Your task to perform on an android device: Go to Wikipedia Image 0: 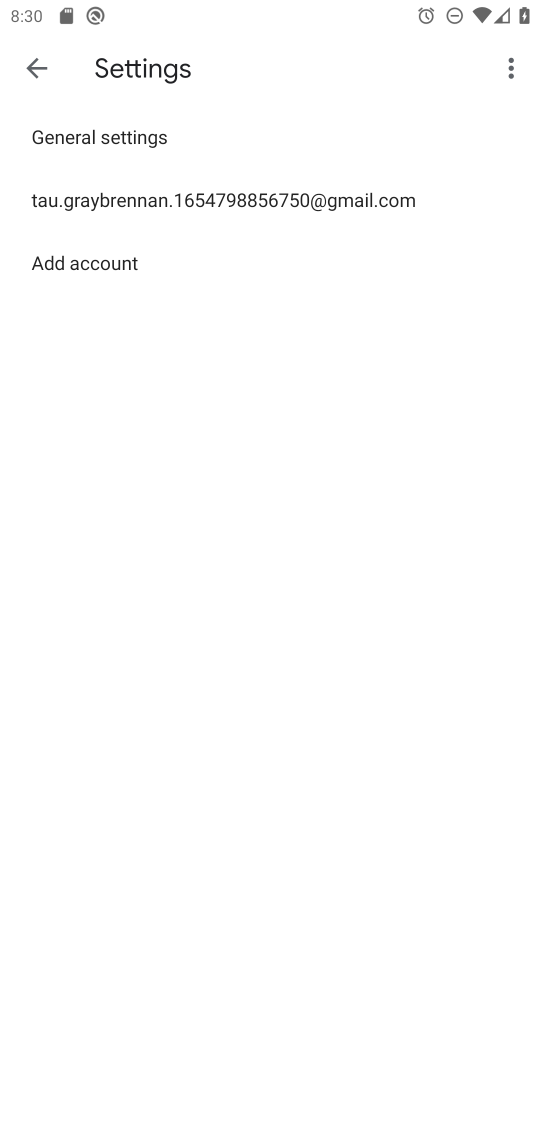
Step 0: drag from (341, 19) to (460, 888)
Your task to perform on an android device: Go to Wikipedia Image 1: 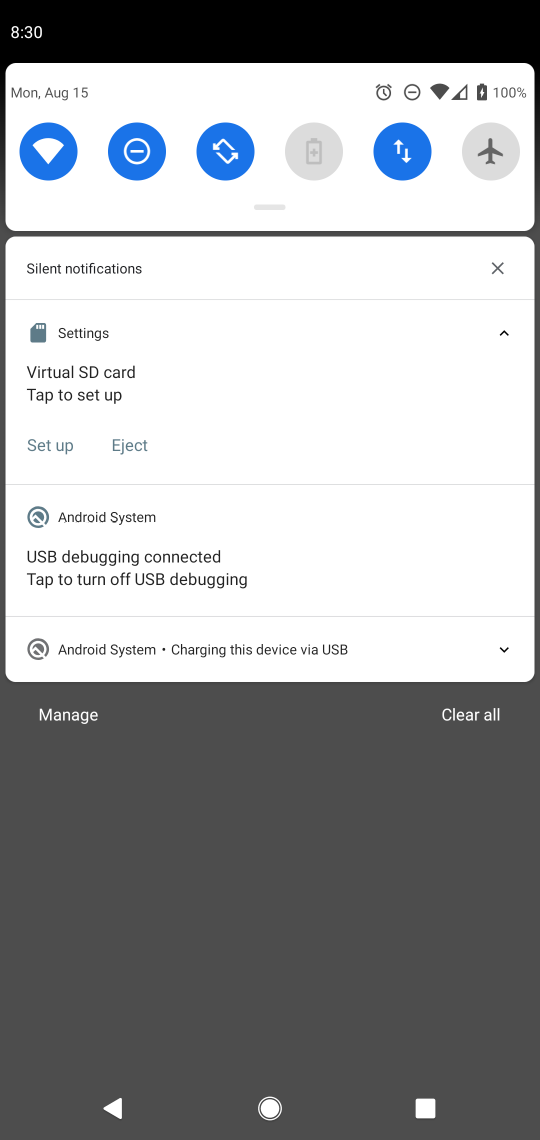
Step 1: press home button
Your task to perform on an android device: Go to Wikipedia Image 2: 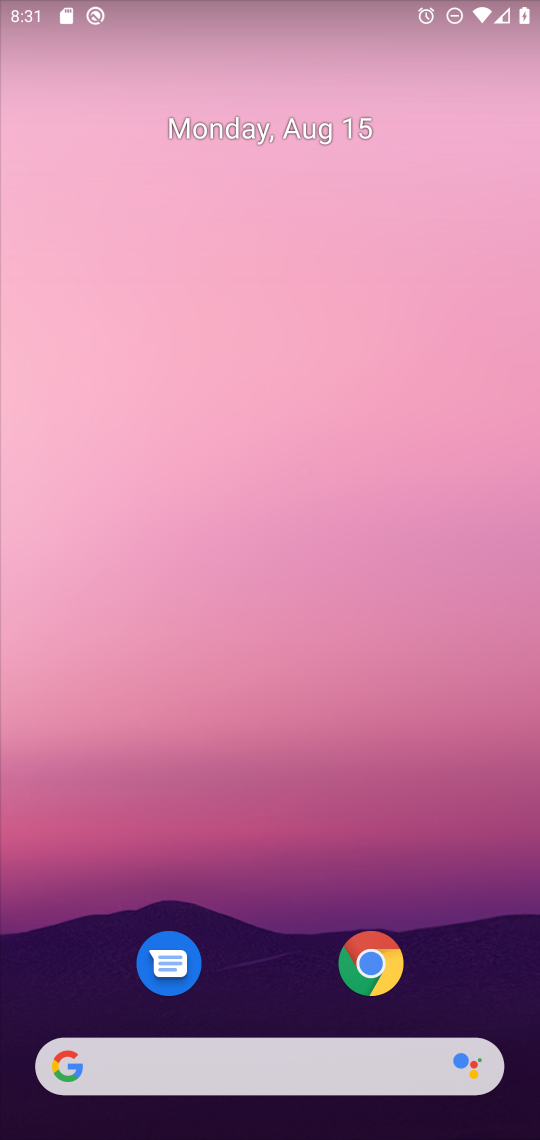
Step 2: click (201, 1087)
Your task to perform on an android device: Go to Wikipedia Image 3: 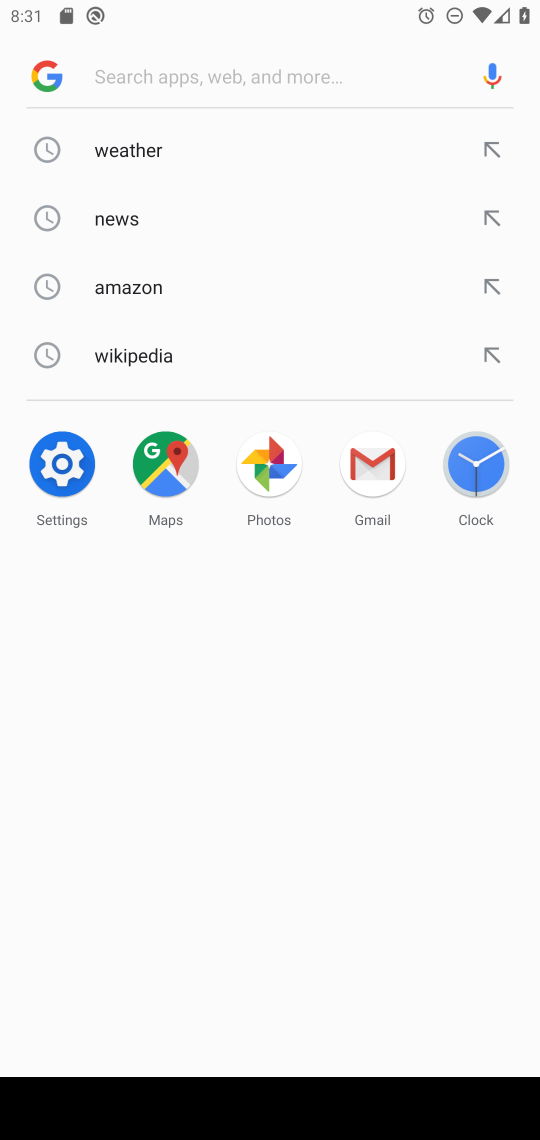
Step 3: click (231, 358)
Your task to perform on an android device: Go to Wikipedia Image 4: 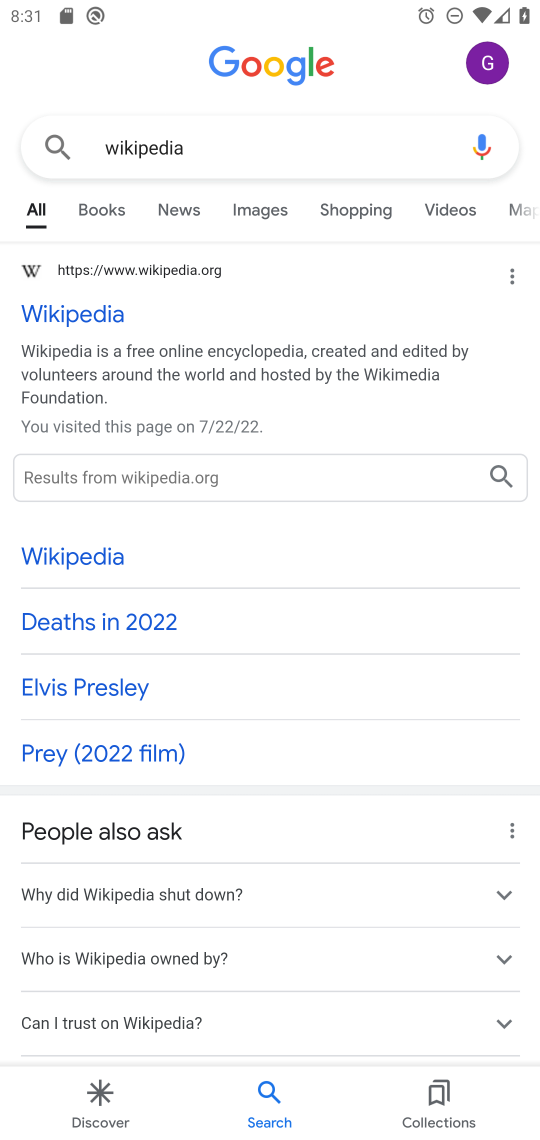
Step 4: click (102, 308)
Your task to perform on an android device: Go to Wikipedia Image 5: 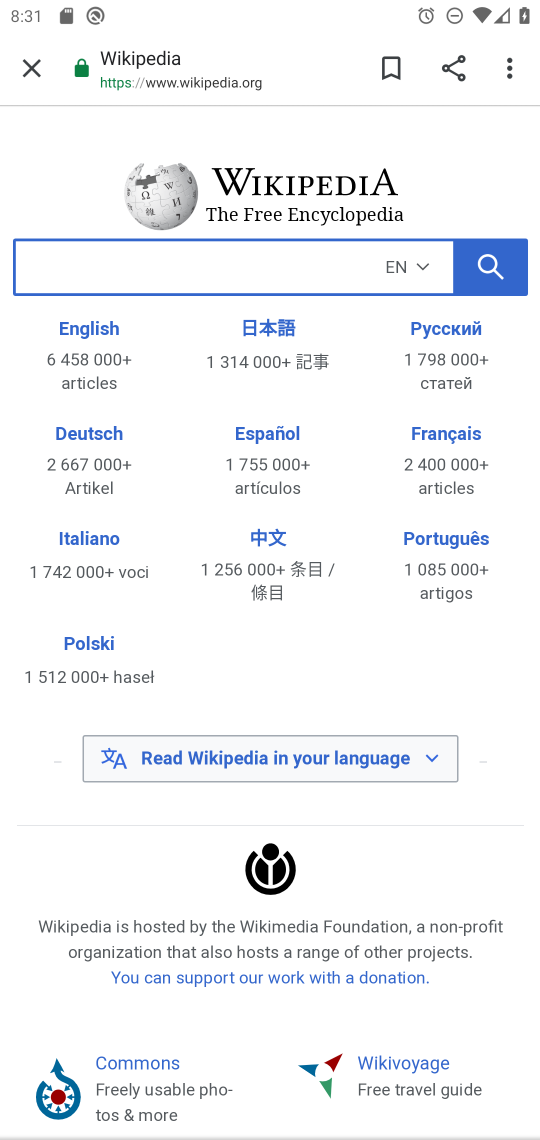
Step 5: task complete